Your task to perform on an android device: Turn on the flashlight Image 0: 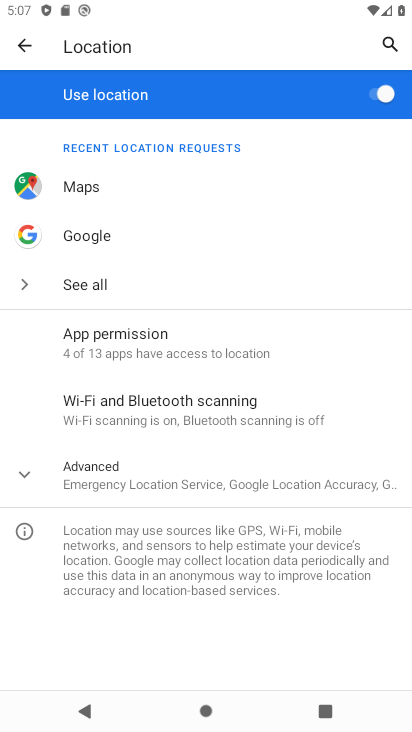
Step 0: drag from (171, 0) to (202, 715)
Your task to perform on an android device: Turn on the flashlight Image 1: 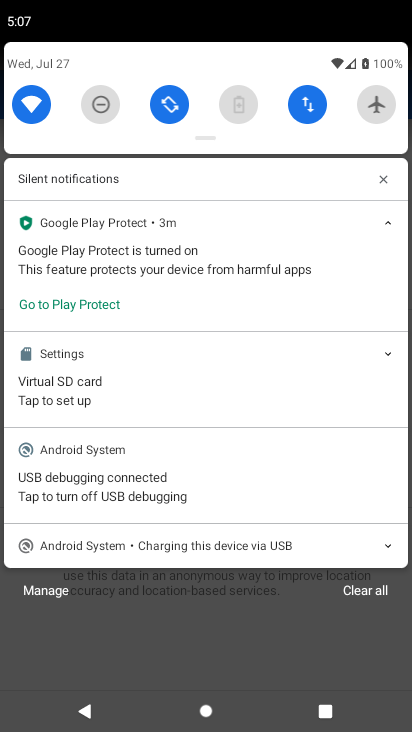
Step 1: task complete